Your task to perform on an android device: add a contact in the contacts app Image 0: 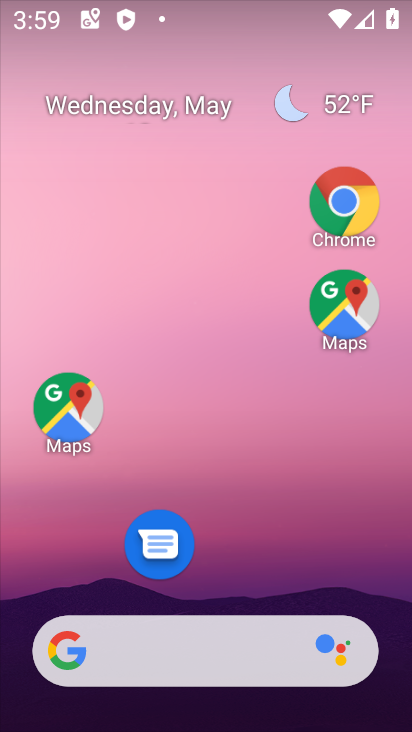
Step 0: click (74, 660)
Your task to perform on an android device: add a contact in the contacts app Image 1: 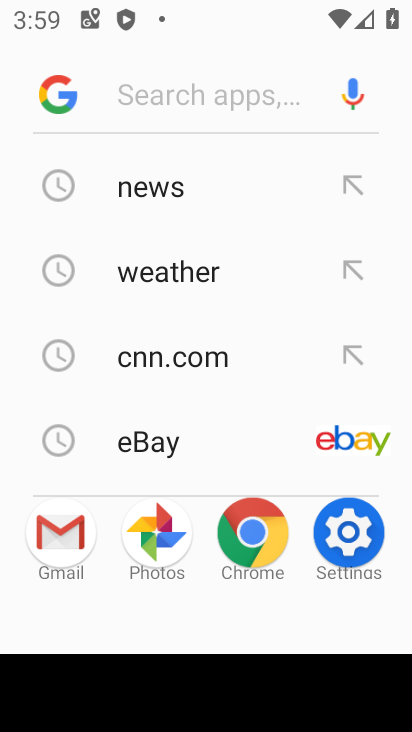
Step 1: click (62, 96)
Your task to perform on an android device: add a contact in the contacts app Image 2: 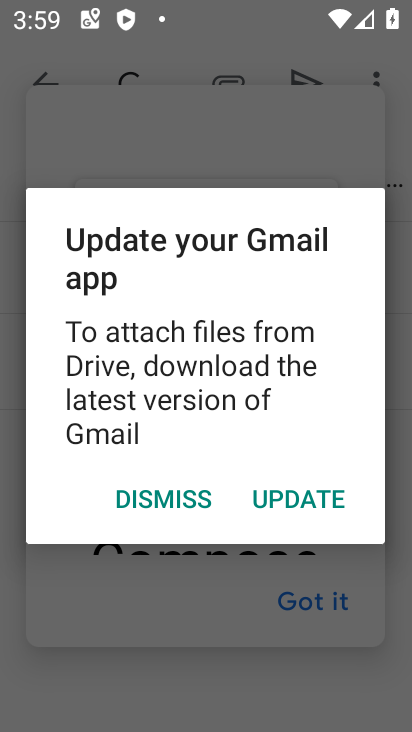
Step 2: click (142, 496)
Your task to perform on an android device: add a contact in the contacts app Image 3: 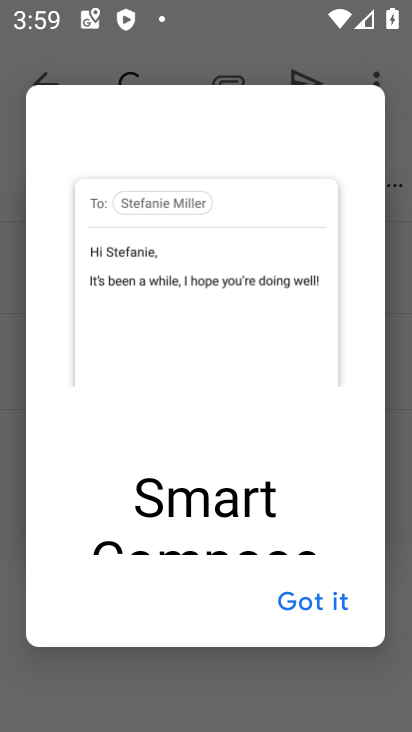
Step 3: press home button
Your task to perform on an android device: add a contact in the contacts app Image 4: 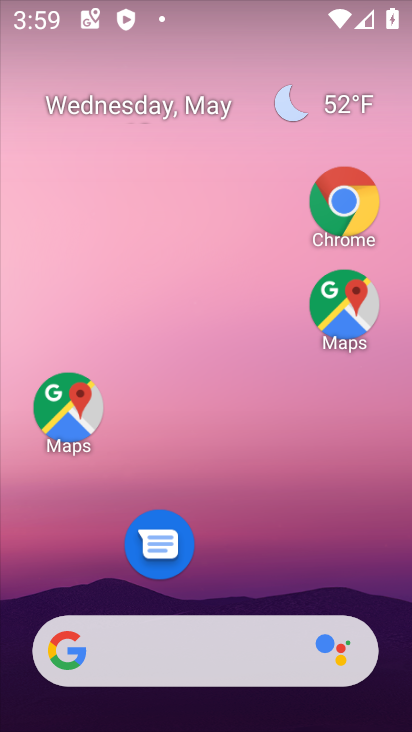
Step 4: click (258, 164)
Your task to perform on an android device: add a contact in the contacts app Image 5: 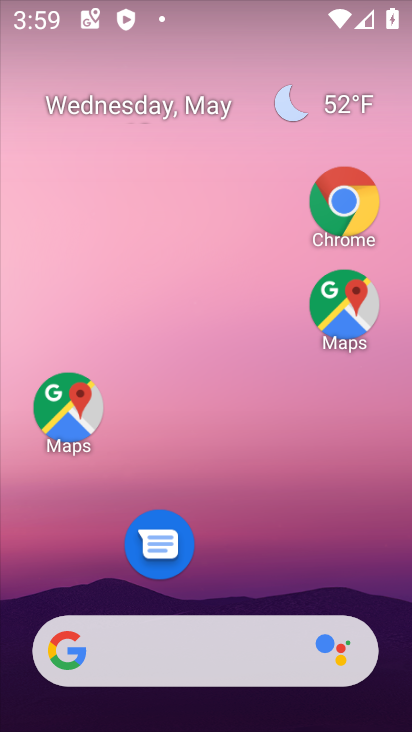
Step 5: click (243, 163)
Your task to perform on an android device: add a contact in the contacts app Image 6: 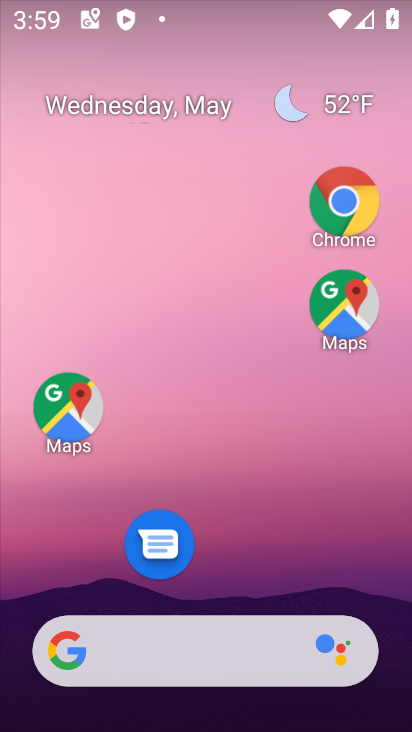
Step 6: drag from (259, 507) to (226, 107)
Your task to perform on an android device: add a contact in the contacts app Image 7: 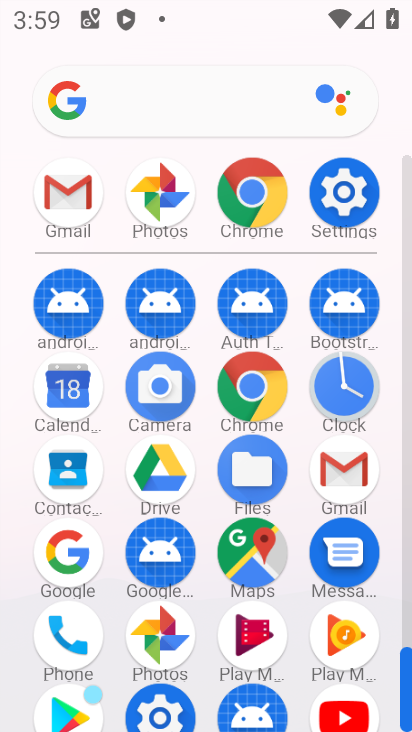
Step 7: click (240, 185)
Your task to perform on an android device: add a contact in the contacts app Image 8: 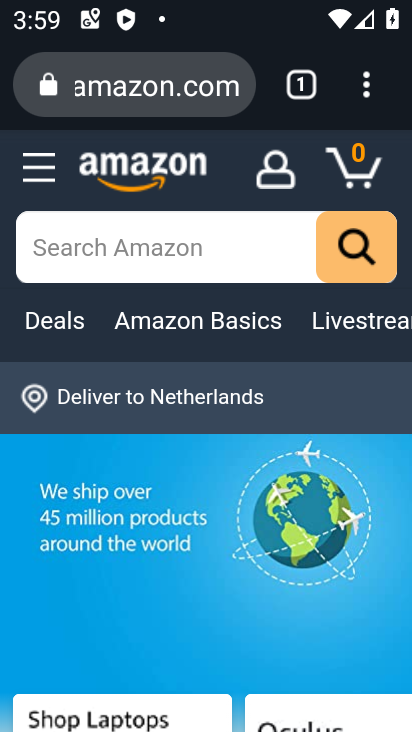
Step 8: press back button
Your task to perform on an android device: add a contact in the contacts app Image 9: 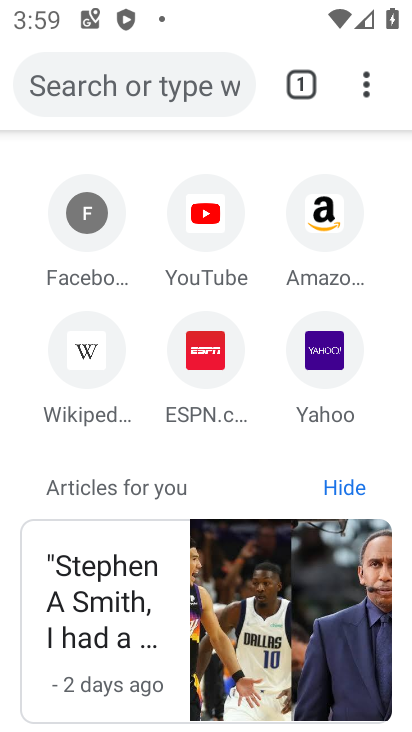
Step 9: press back button
Your task to perform on an android device: add a contact in the contacts app Image 10: 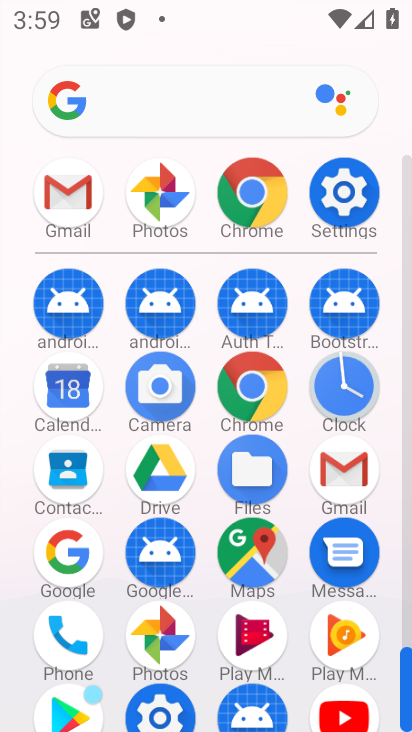
Step 10: click (65, 490)
Your task to perform on an android device: add a contact in the contacts app Image 11: 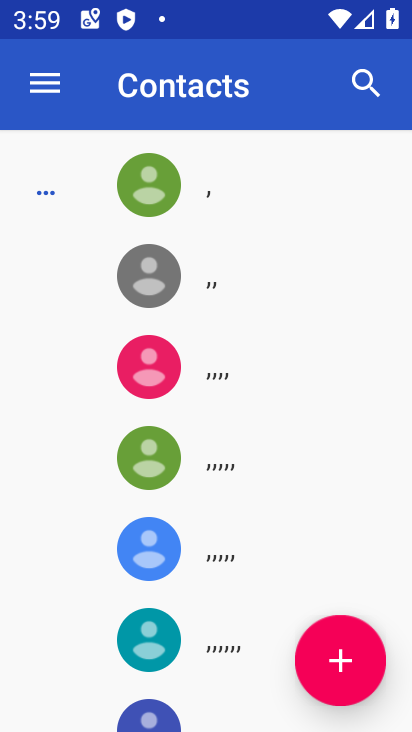
Step 11: click (328, 668)
Your task to perform on an android device: add a contact in the contacts app Image 12: 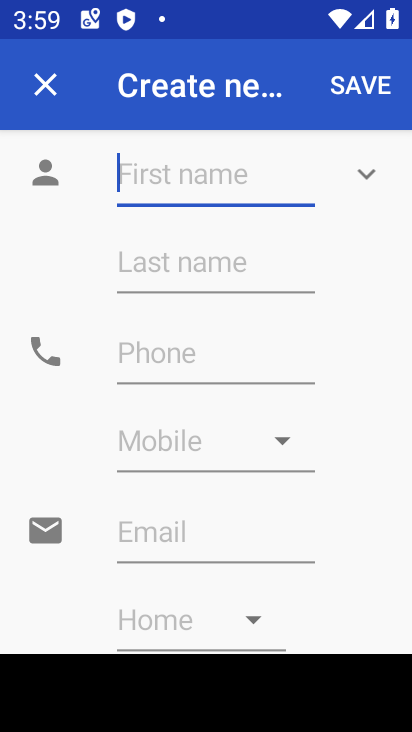
Step 12: click (175, 185)
Your task to perform on an android device: add a contact in the contacts app Image 13: 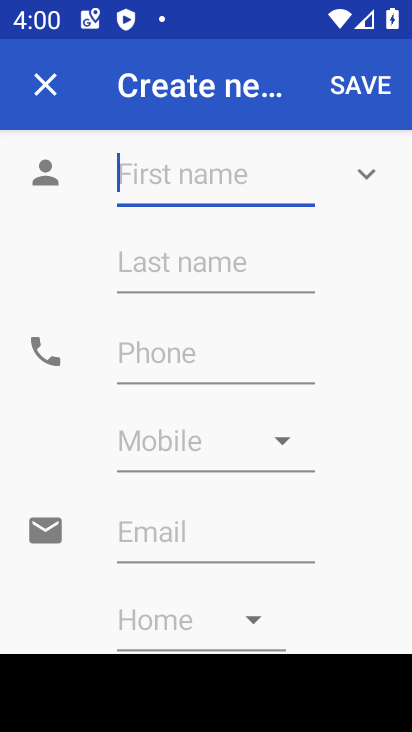
Step 13: type "ZAHIR"
Your task to perform on an android device: add a contact in the contacts app Image 14: 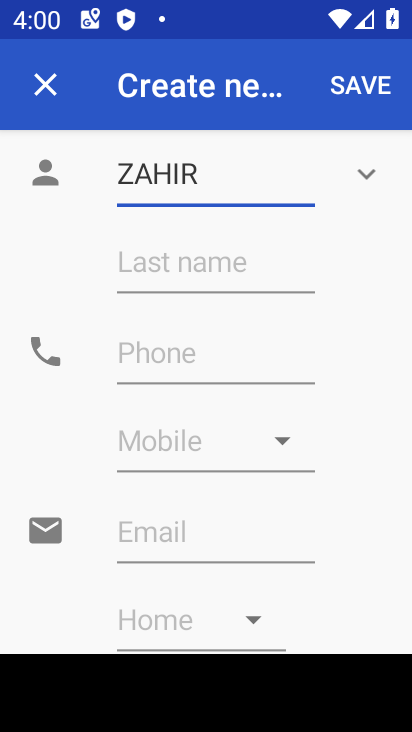
Step 14: click (225, 258)
Your task to perform on an android device: add a contact in the contacts app Image 15: 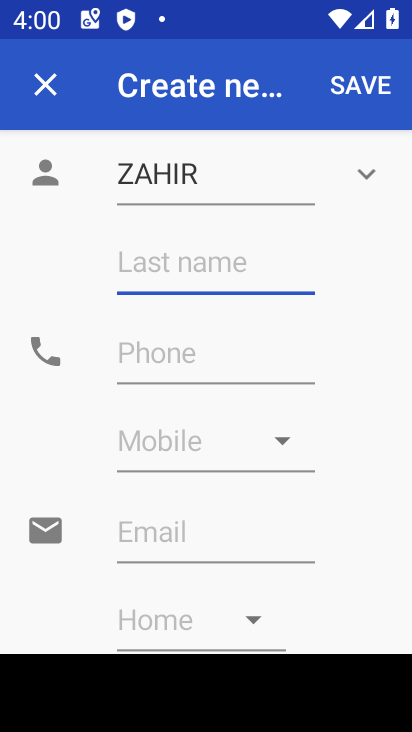
Step 15: type "khan"
Your task to perform on an android device: add a contact in the contacts app Image 16: 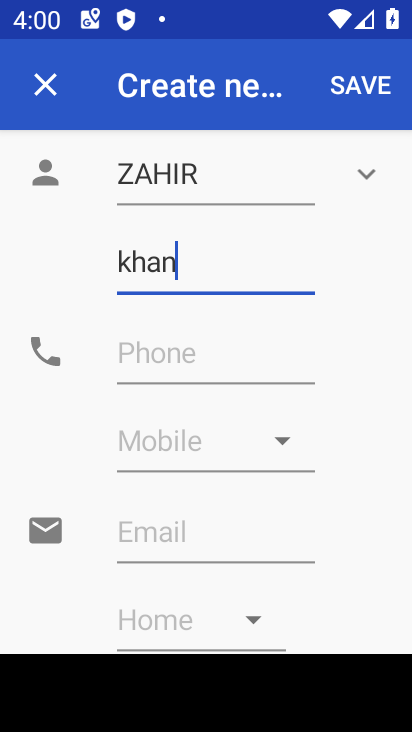
Step 16: click (172, 350)
Your task to perform on an android device: add a contact in the contacts app Image 17: 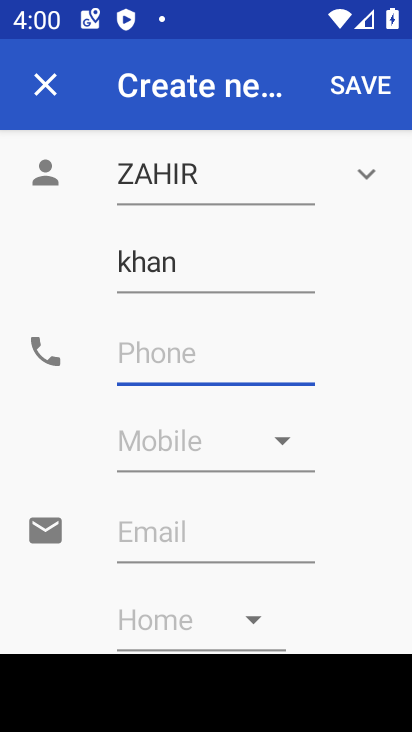
Step 17: type "8787787890"
Your task to perform on an android device: add a contact in the contacts app Image 18: 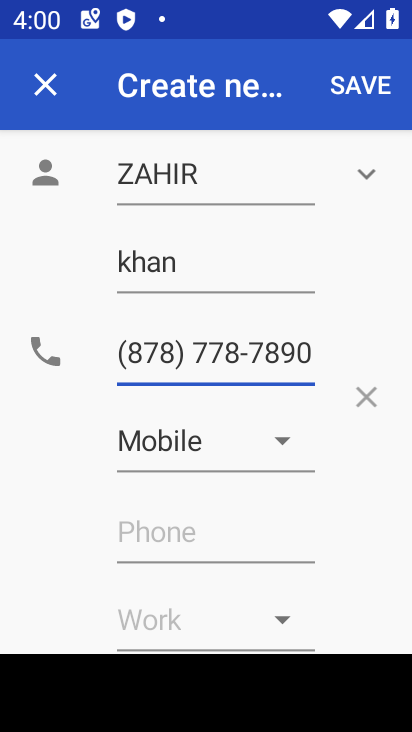
Step 18: click (385, 84)
Your task to perform on an android device: add a contact in the contacts app Image 19: 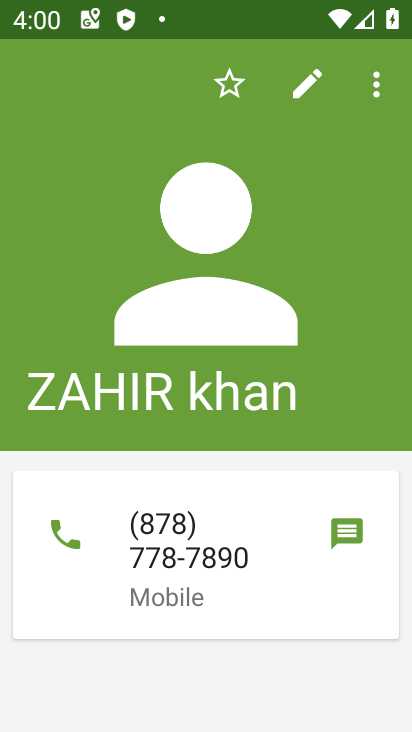
Step 19: task complete